Your task to perform on an android device: Open the map Image 0: 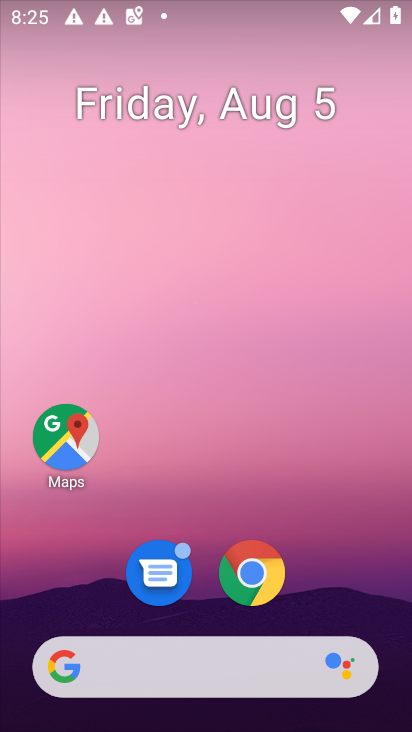
Step 0: click (67, 439)
Your task to perform on an android device: Open the map Image 1: 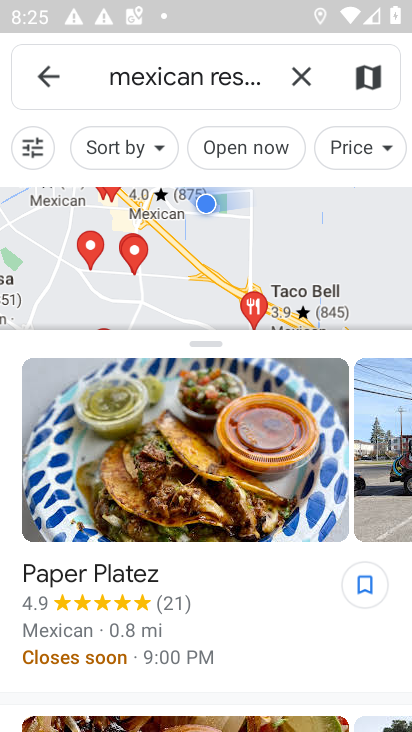
Step 1: task complete